Your task to perform on an android device: change notifications settings Image 0: 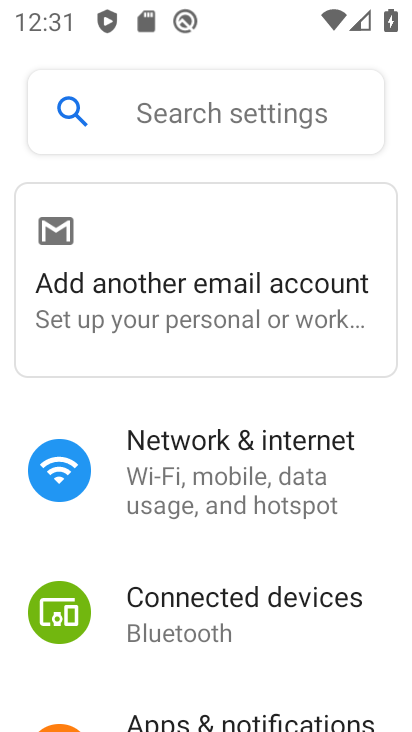
Step 0: click (351, 717)
Your task to perform on an android device: change notifications settings Image 1: 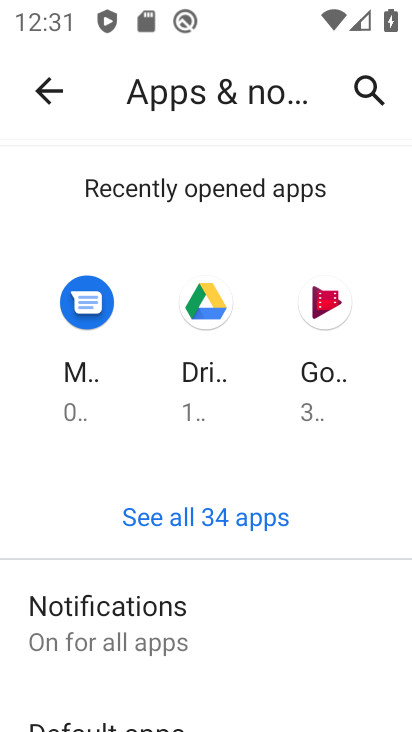
Step 1: click (269, 601)
Your task to perform on an android device: change notifications settings Image 2: 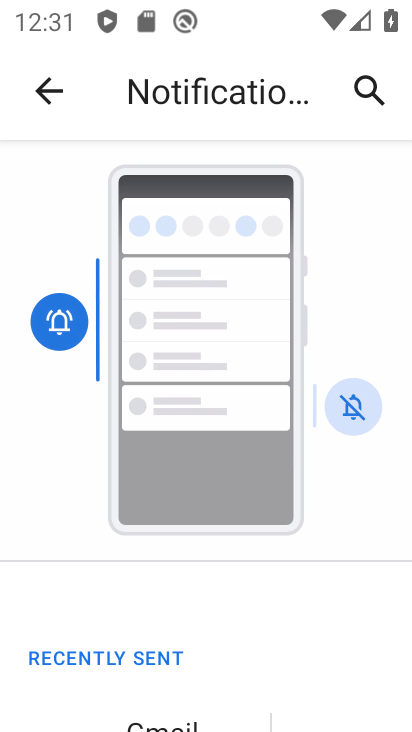
Step 2: drag from (233, 558) to (226, 495)
Your task to perform on an android device: change notifications settings Image 3: 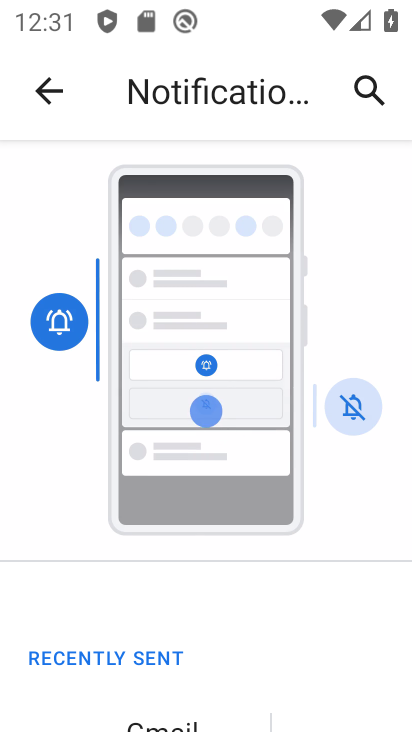
Step 3: drag from (220, 449) to (257, 210)
Your task to perform on an android device: change notifications settings Image 4: 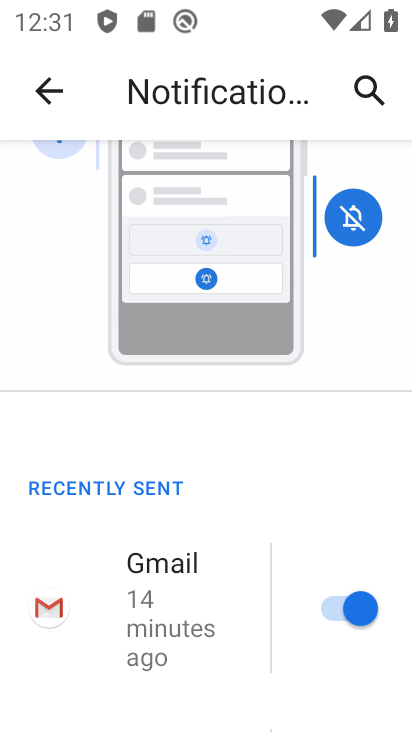
Step 4: click (325, 616)
Your task to perform on an android device: change notifications settings Image 5: 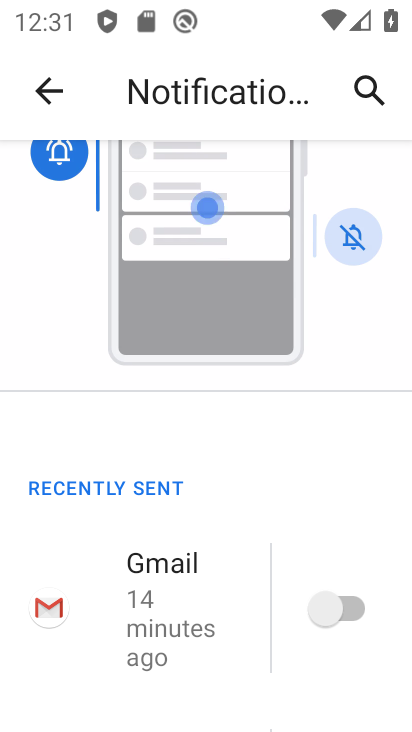
Step 5: task complete